Your task to perform on an android device: set default search engine in the chrome app Image 0: 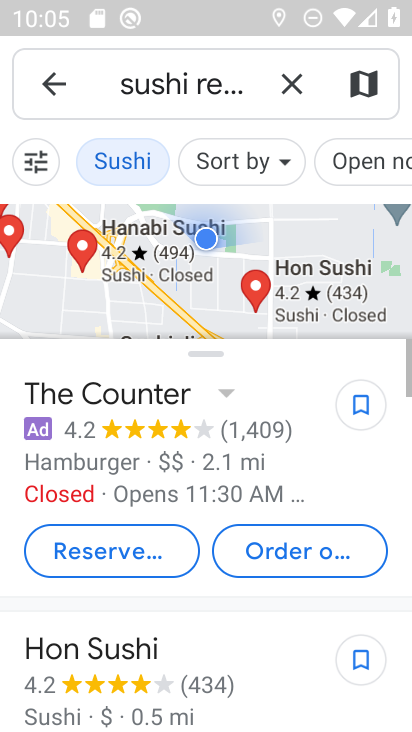
Step 0: press home button
Your task to perform on an android device: set default search engine in the chrome app Image 1: 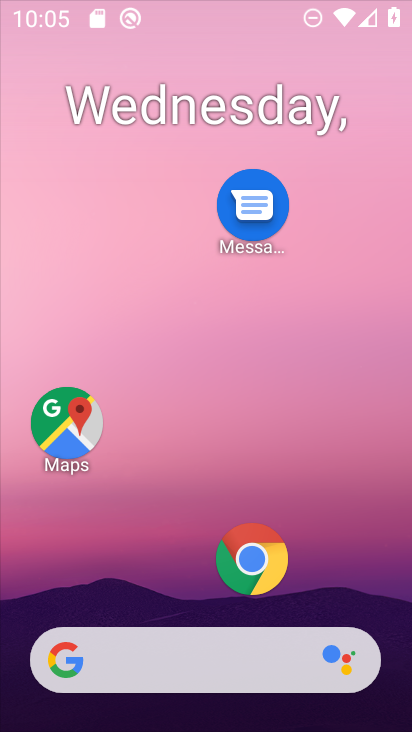
Step 1: drag from (165, 651) to (218, 160)
Your task to perform on an android device: set default search engine in the chrome app Image 2: 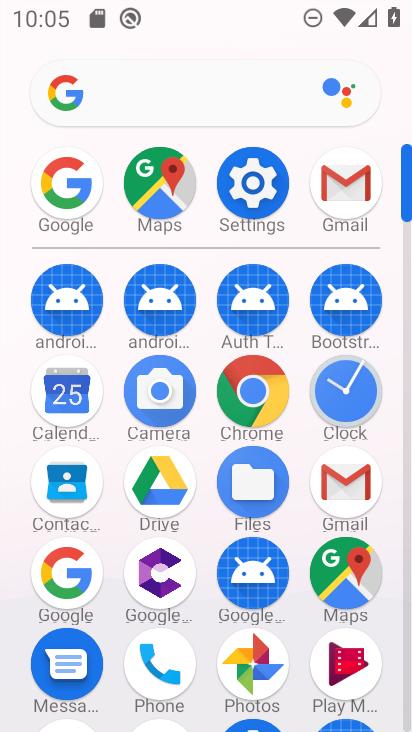
Step 2: click (274, 418)
Your task to perform on an android device: set default search engine in the chrome app Image 3: 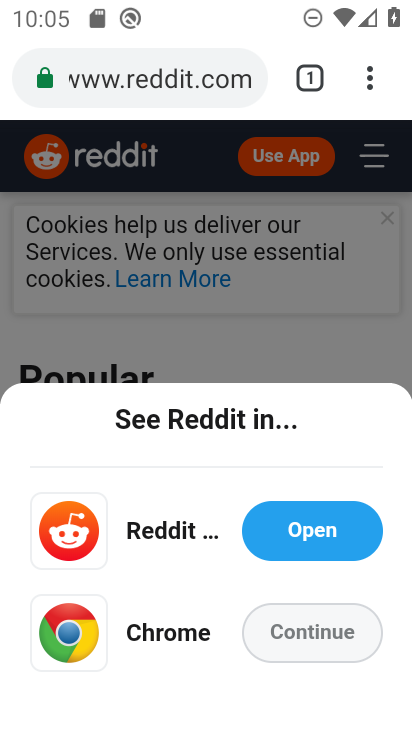
Step 3: click (363, 74)
Your task to perform on an android device: set default search engine in the chrome app Image 4: 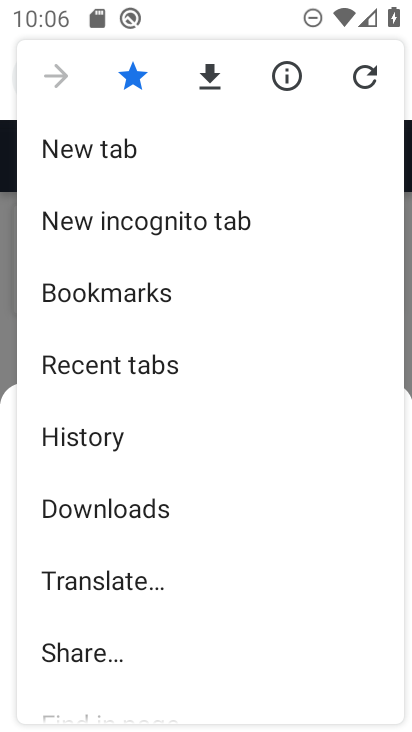
Step 4: drag from (170, 539) to (214, 136)
Your task to perform on an android device: set default search engine in the chrome app Image 5: 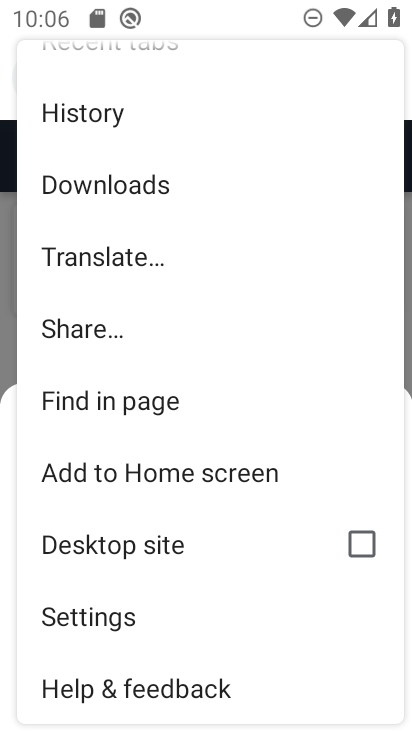
Step 5: click (113, 611)
Your task to perform on an android device: set default search engine in the chrome app Image 6: 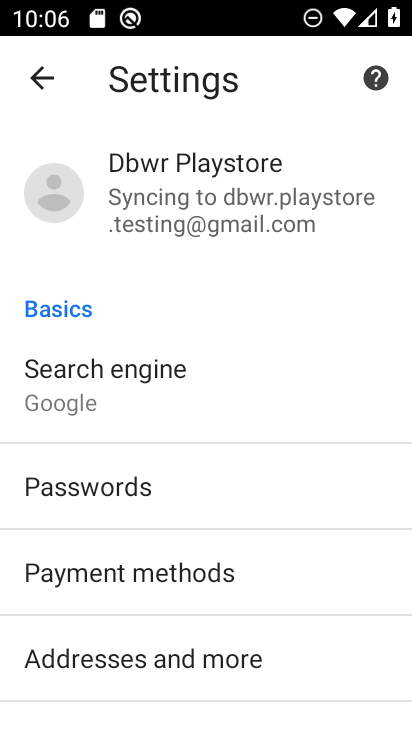
Step 6: click (78, 399)
Your task to perform on an android device: set default search engine in the chrome app Image 7: 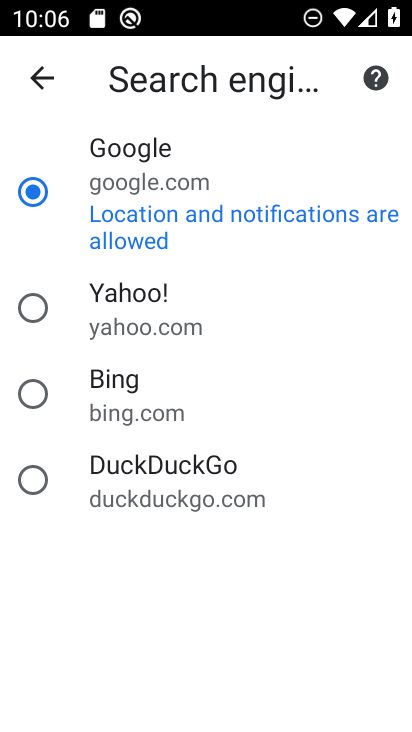
Step 7: task complete